Your task to perform on an android device: Show me popular games on the Play Store Image 0: 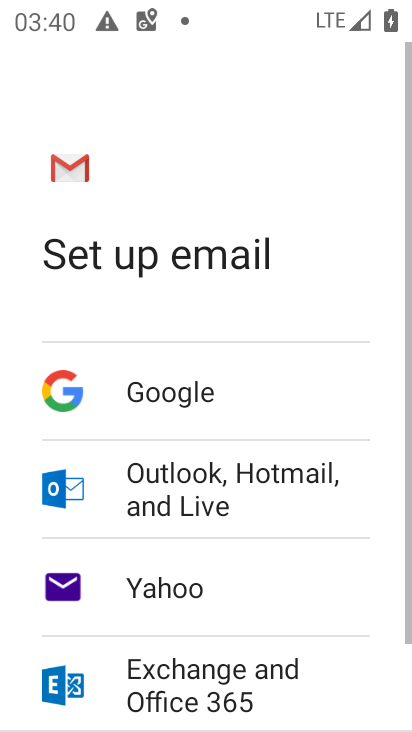
Step 0: press home button
Your task to perform on an android device: Show me popular games on the Play Store Image 1: 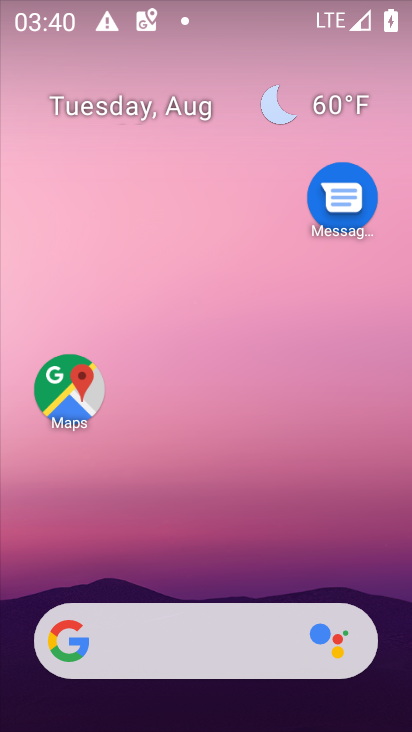
Step 1: drag from (230, 574) to (287, 91)
Your task to perform on an android device: Show me popular games on the Play Store Image 2: 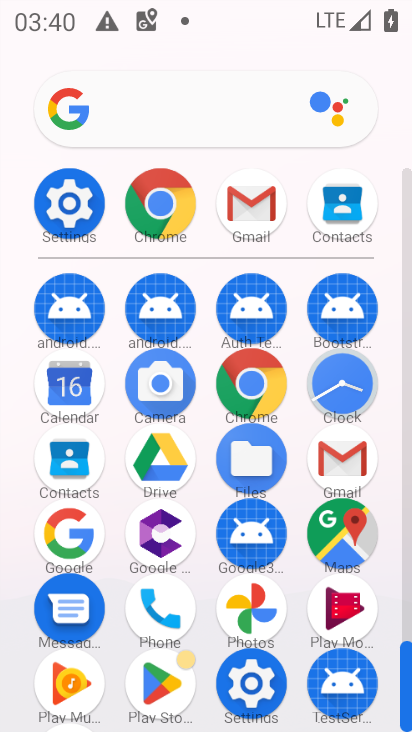
Step 2: click (173, 696)
Your task to perform on an android device: Show me popular games on the Play Store Image 3: 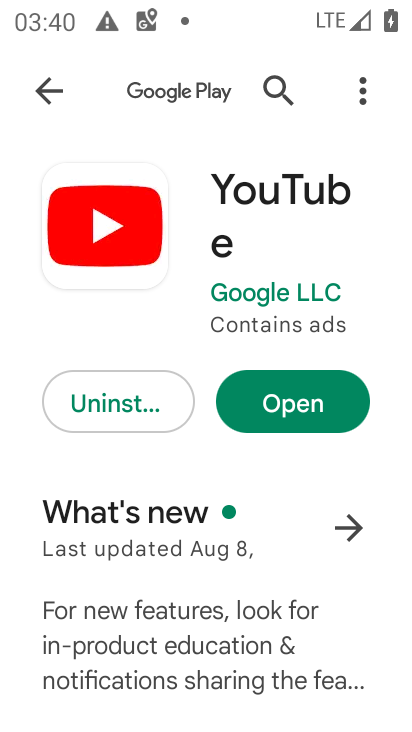
Step 3: click (43, 90)
Your task to perform on an android device: Show me popular games on the Play Store Image 4: 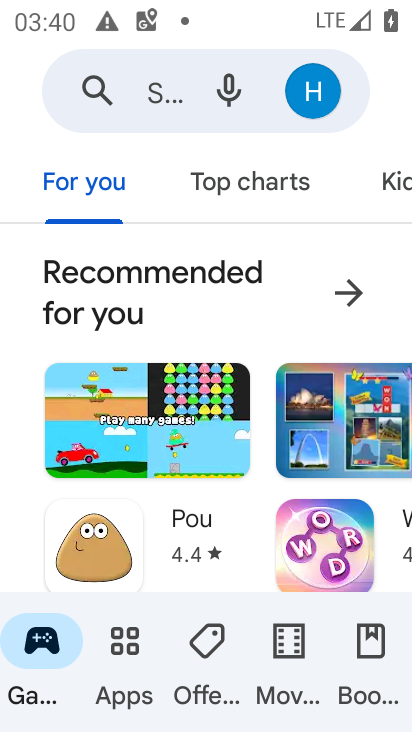
Step 4: click (224, 195)
Your task to perform on an android device: Show me popular games on the Play Store Image 5: 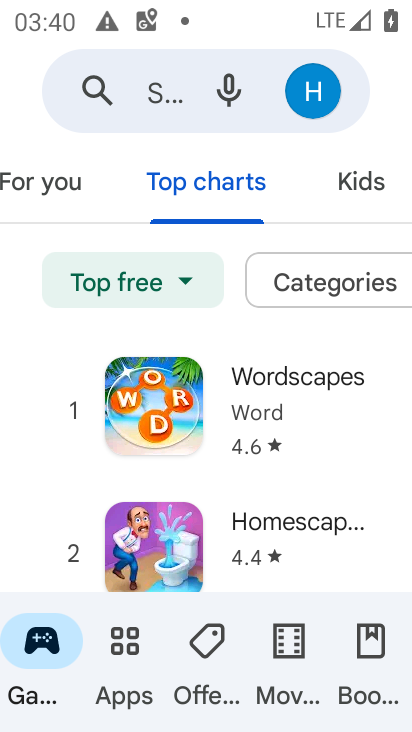
Step 5: task complete